Your task to perform on an android device: Search for lenovo thinkpad on newegg, select the first entry, add it to the cart, then select checkout. Image 0: 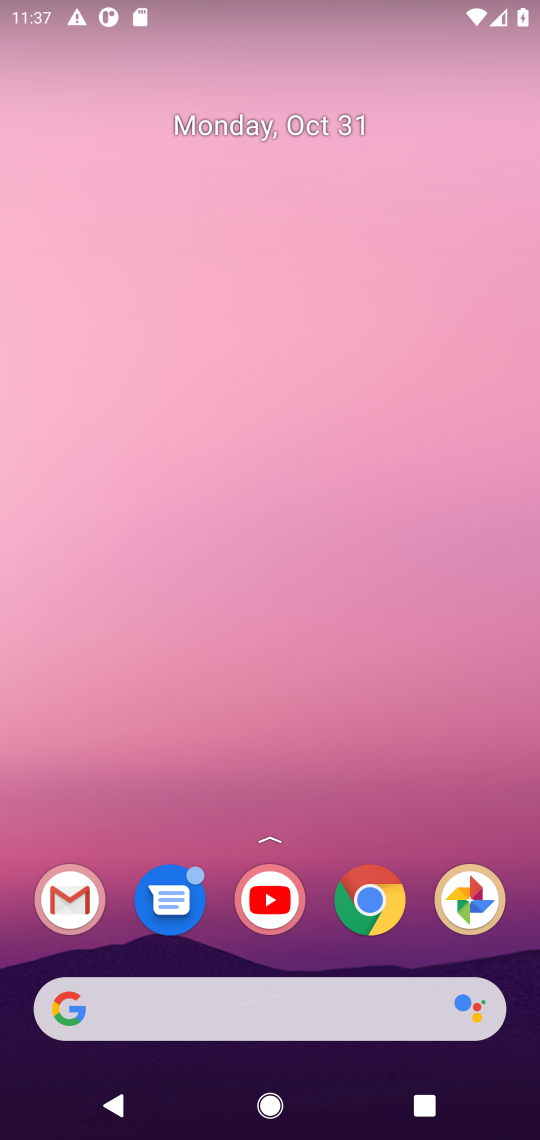
Step 0: click (378, 898)
Your task to perform on an android device: Search for lenovo thinkpad on newegg, select the first entry, add it to the cart, then select checkout. Image 1: 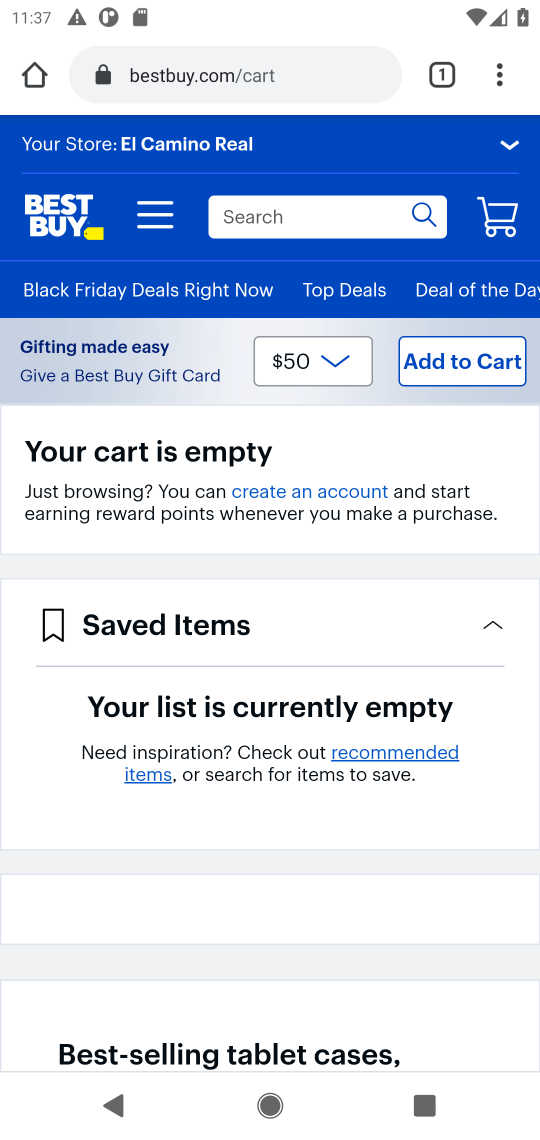
Step 1: click (197, 68)
Your task to perform on an android device: Search for lenovo thinkpad on newegg, select the first entry, add it to the cart, then select checkout. Image 2: 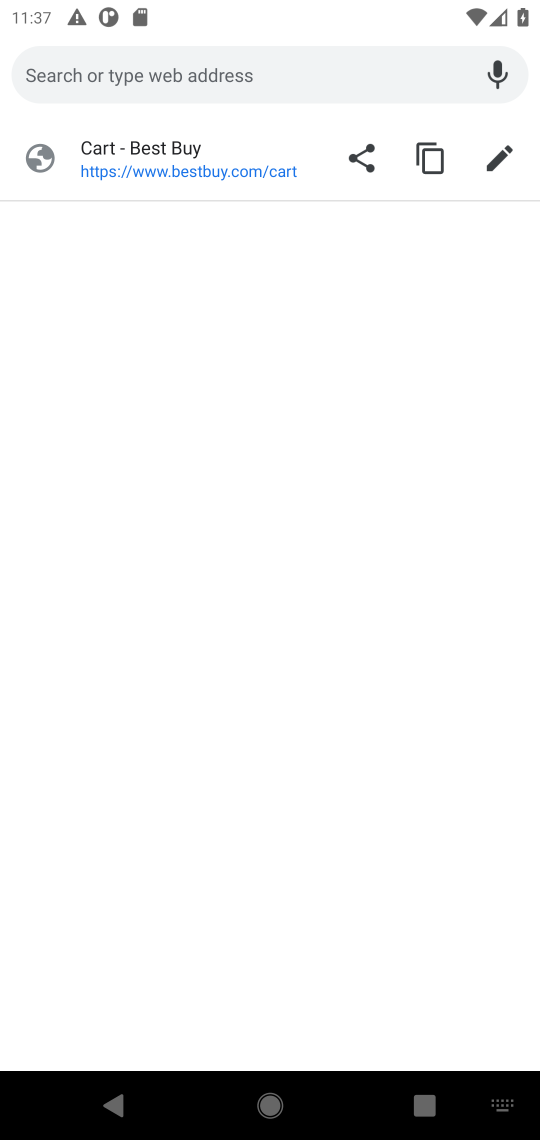
Step 2: type "newegg"
Your task to perform on an android device: Search for lenovo thinkpad on newegg, select the first entry, add it to the cart, then select checkout. Image 3: 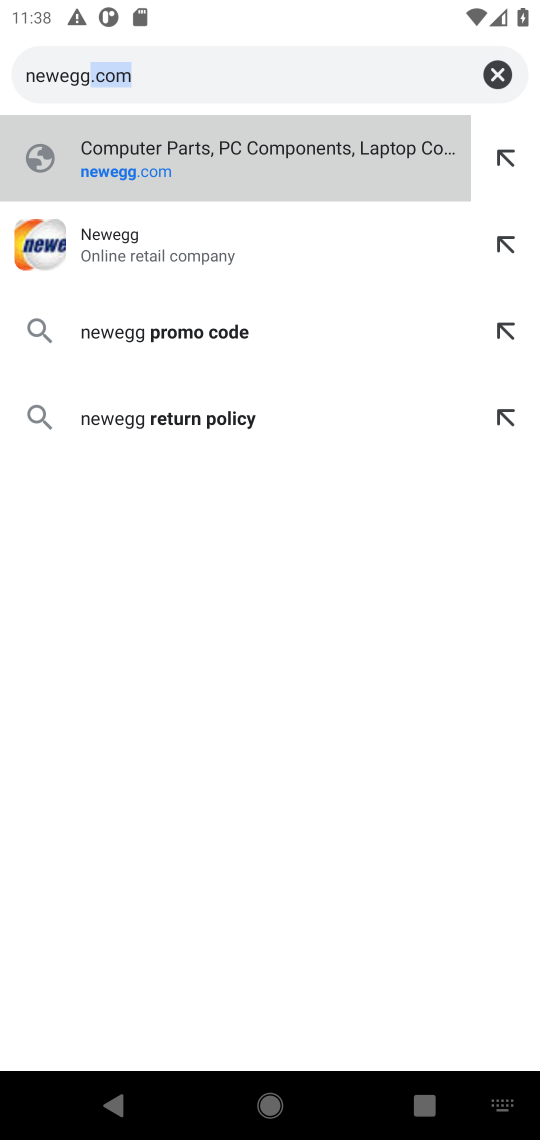
Step 3: press enter
Your task to perform on an android device: Search for lenovo thinkpad on newegg, select the first entry, add it to the cart, then select checkout. Image 4: 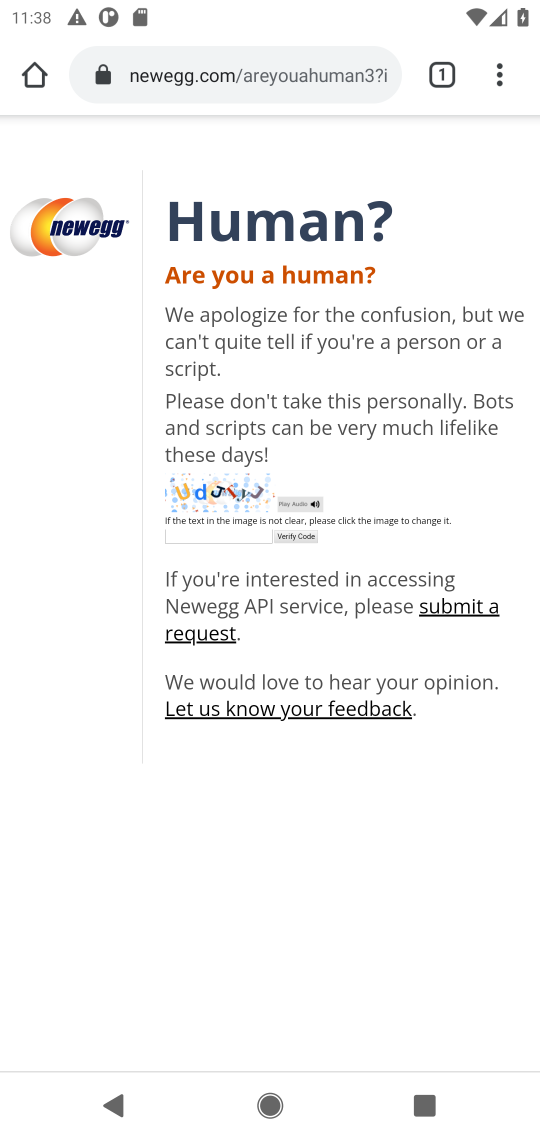
Step 4: click (210, 493)
Your task to perform on an android device: Search for lenovo thinkpad on newegg, select the first entry, add it to the cart, then select checkout. Image 5: 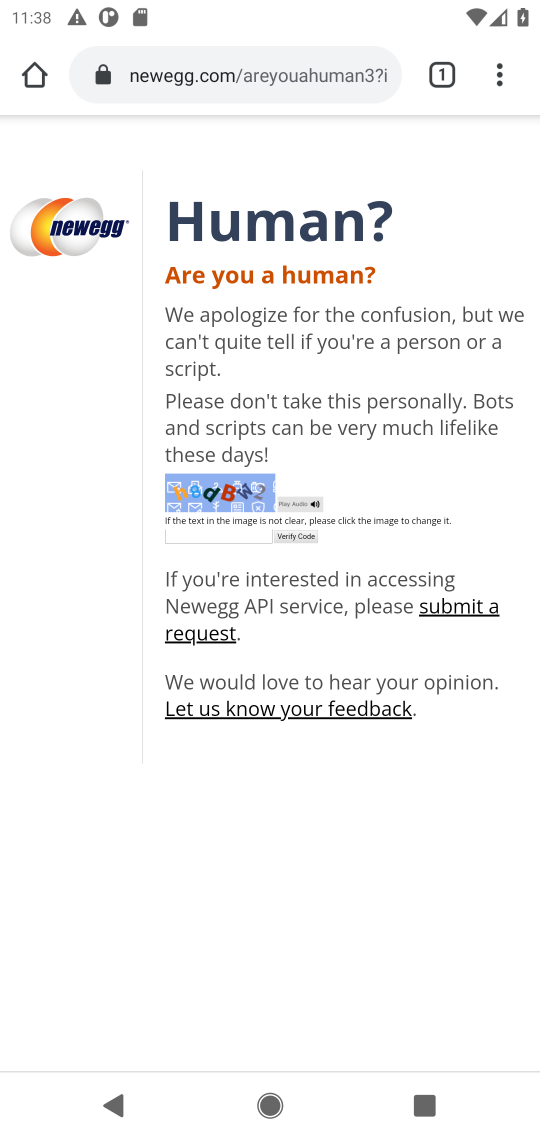
Step 5: click (206, 533)
Your task to perform on an android device: Search for lenovo thinkpad on newegg, select the first entry, add it to the cart, then select checkout. Image 6: 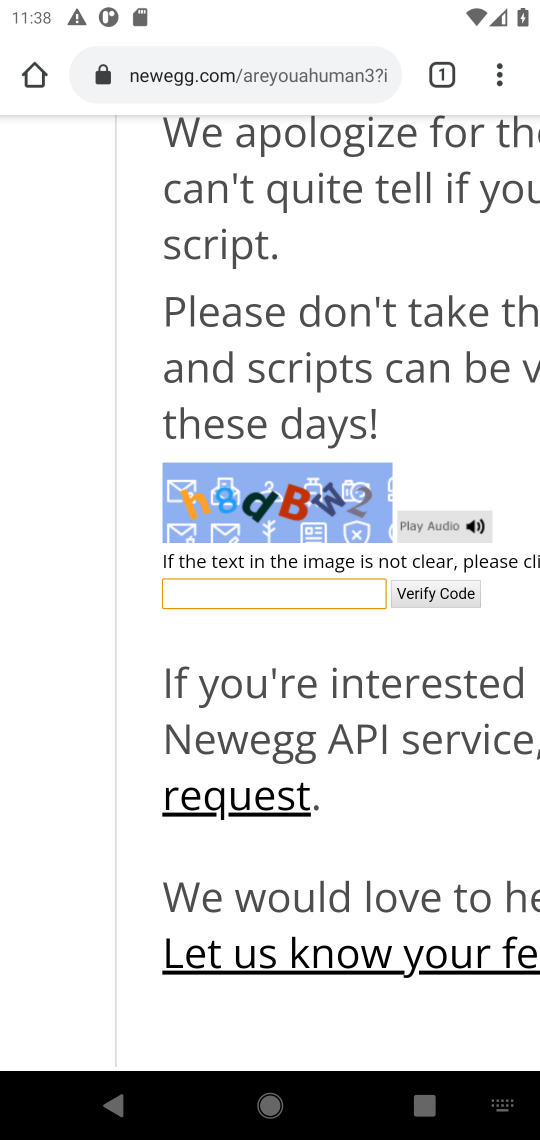
Step 6: task complete